Your task to perform on an android device: Open Google Chrome and click the shortcut for Amazon.com Image 0: 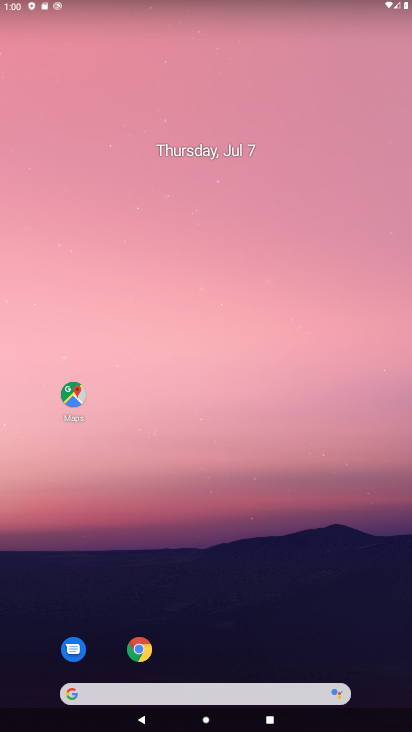
Step 0: click (380, 651)
Your task to perform on an android device: Open Google Chrome and click the shortcut for Amazon.com Image 1: 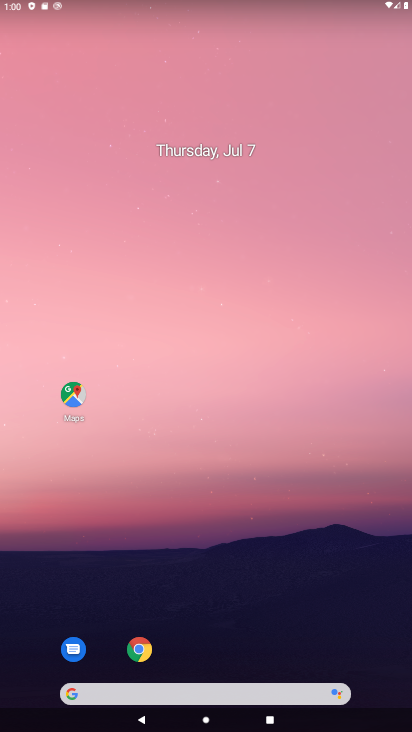
Step 1: click (140, 648)
Your task to perform on an android device: Open Google Chrome and click the shortcut for Amazon.com Image 2: 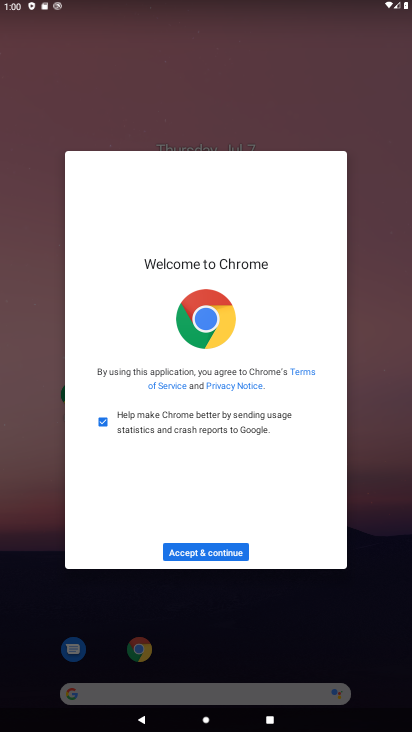
Step 2: click (197, 547)
Your task to perform on an android device: Open Google Chrome and click the shortcut for Amazon.com Image 3: 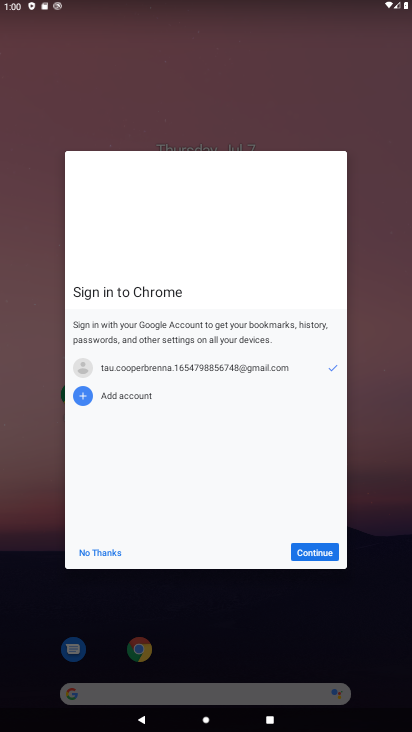
Step 3: click (317, 550)
Your task to perform on an android device: Open Google Chrome and click the shortcut for Amazon.com Image 4: 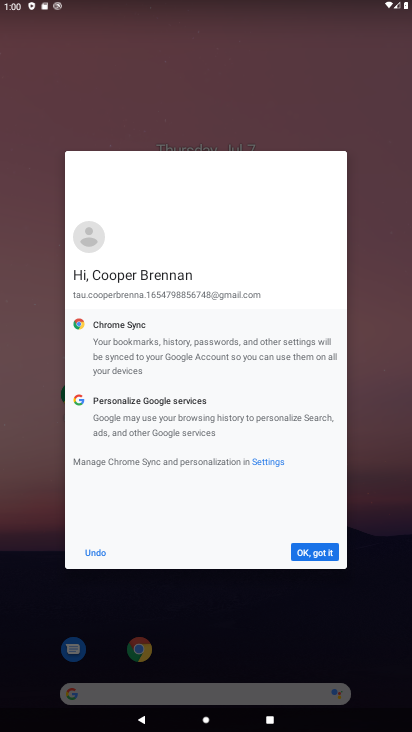
Step 4: click (317, 550)
Your task to perform on an android device: Open Google Chrome and click the shortcut for Amazon.com Image 5: 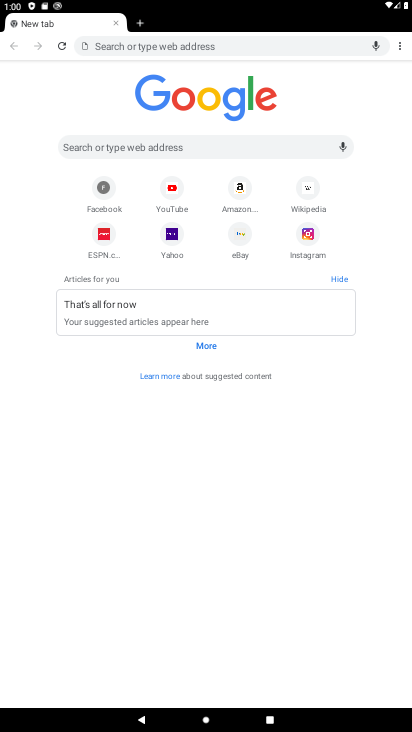
Step 5: click (236, 192)
Your task to perform on an android device: Open Google Chrome and click the shortcut for Amazon.com Image 6: 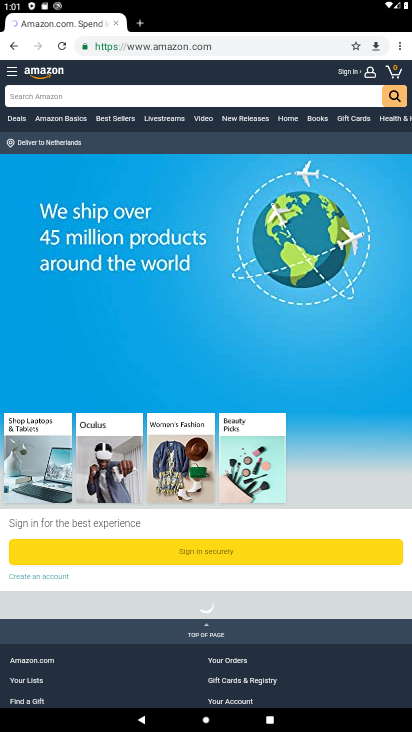
Step 6: task complete